Your task to perform on an android device: Open ESPN.com Image 0: 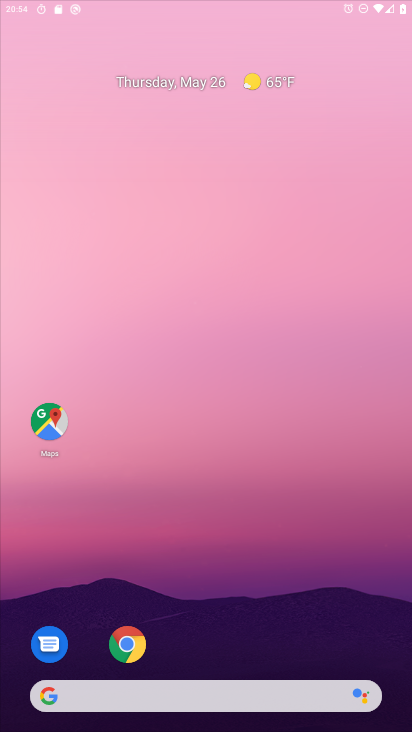
Step 0: click (272, 27)
Your task to perform on an android device: Open ESPN.com Image 1: 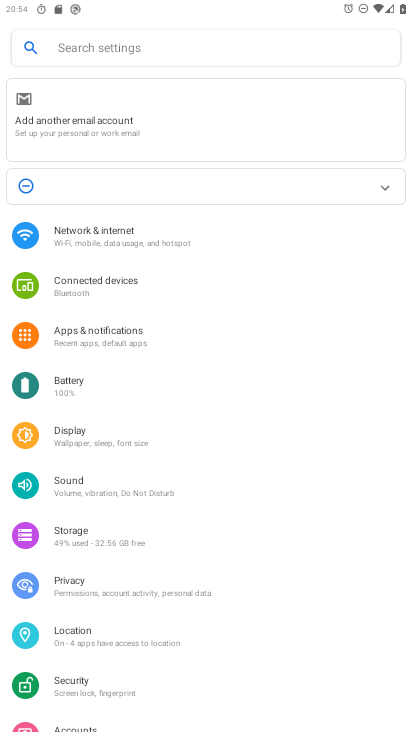
Step 1: drag from (188, 609) to (253, 185)
Your task to perform on an android device: Open ESPN.com Image 2: 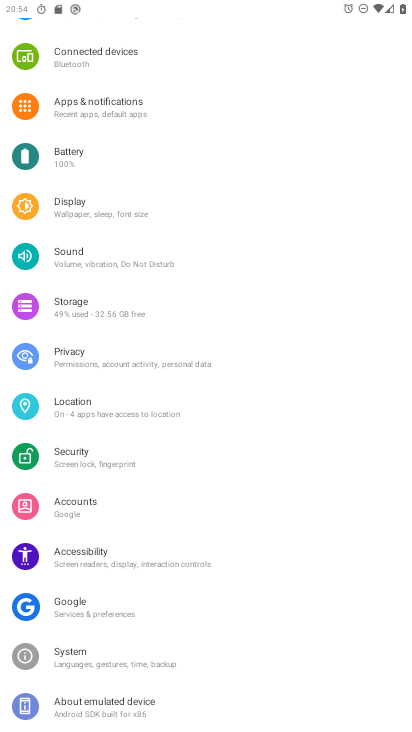
Step 2: drag from (218, 98) to (402, 374)
Your task to perform on an android device: Open ESPN.com Image 3: 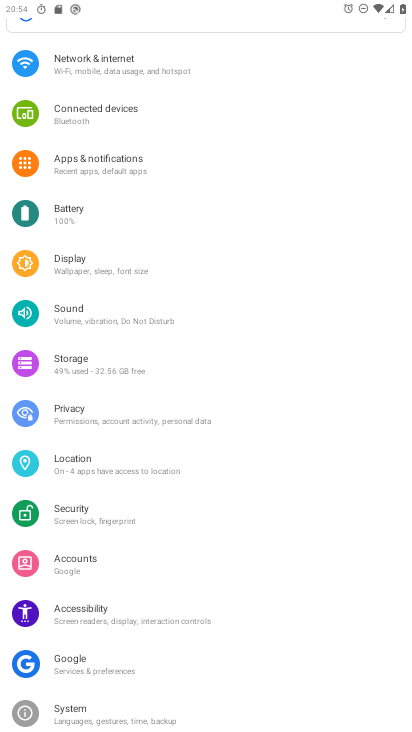
Step 3: drag from (182, 633) to (257, 157)
Your task to perform on an android device: Open ESPN.com Image 4: 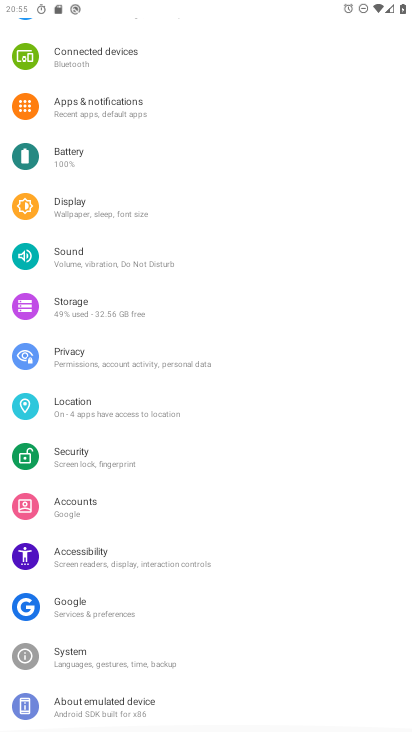
Step 4: drag from (251, 118) to (283, 731)
Your task to perform on an android device: Open ESPN.com Image 5: 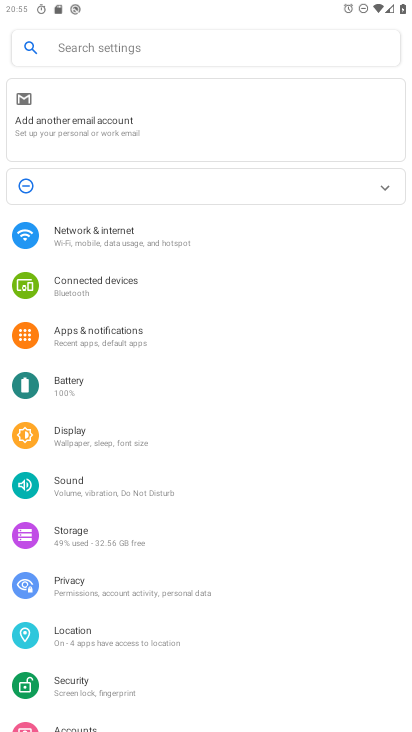
Step 5: drag from (199, 584) to (284, 211)
Your task to perform on an android device: Open ESPN.com Image 6: 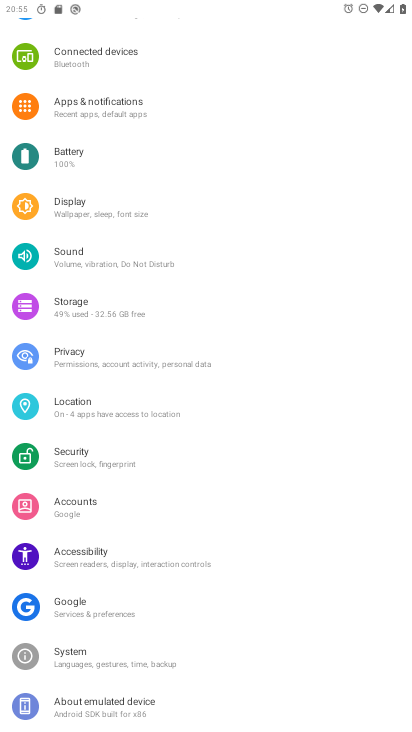
Step 6: drag from (192, 235) to (389, 353)
Your task to perform on an android device: Open ESPN.com Image 7: 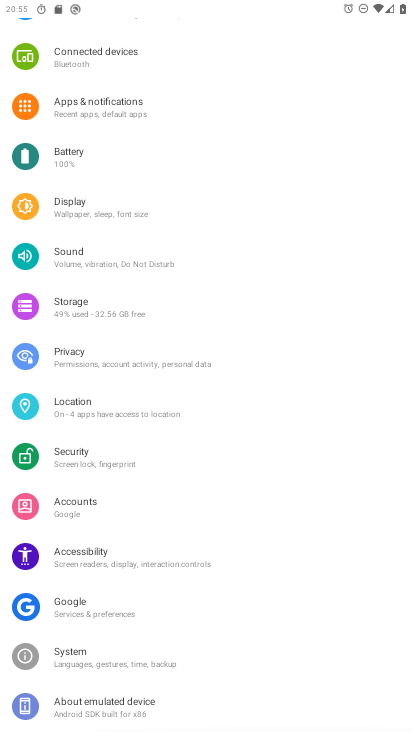
Step 7: drag from (214, 206) to (356, 586)
Your task to perform on an android device: Open ESPN.com Image 8: 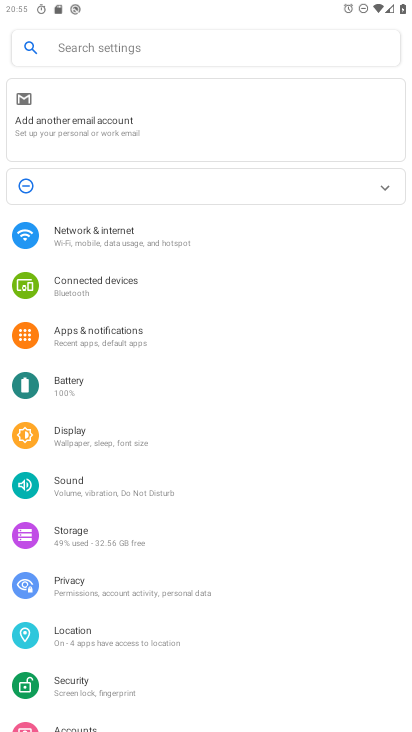
Step 8: press home button
Your task to perform on an android device: Open ESPN.com Image 9: 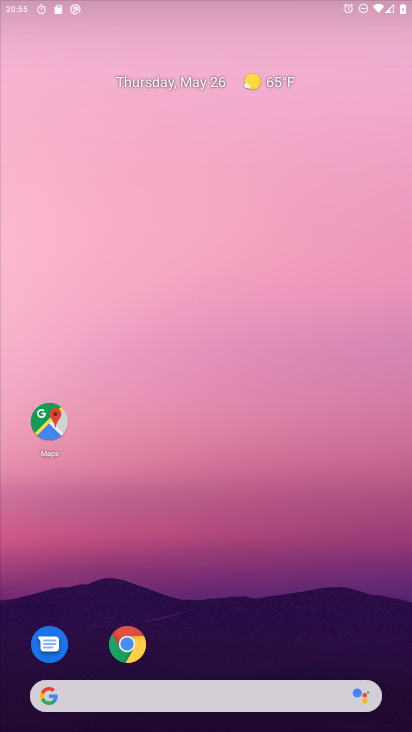
Step 9: click (298, 81)
Your task to perform on an android device: Open ESPN.com Image 10: 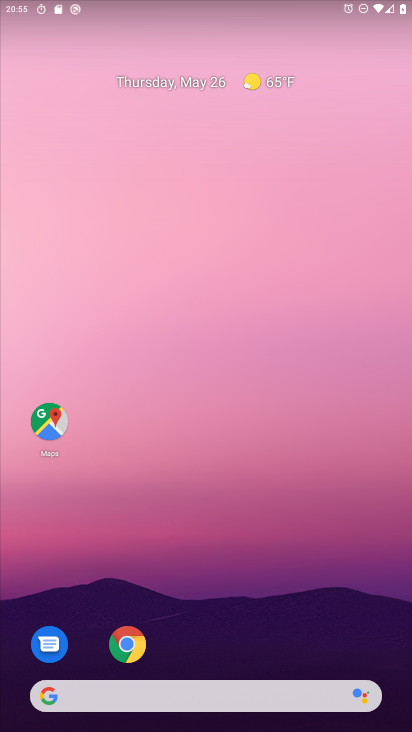
Step 10: click (130, 685)
Your task to perform on an android device: Open ESPN.com Image 11: 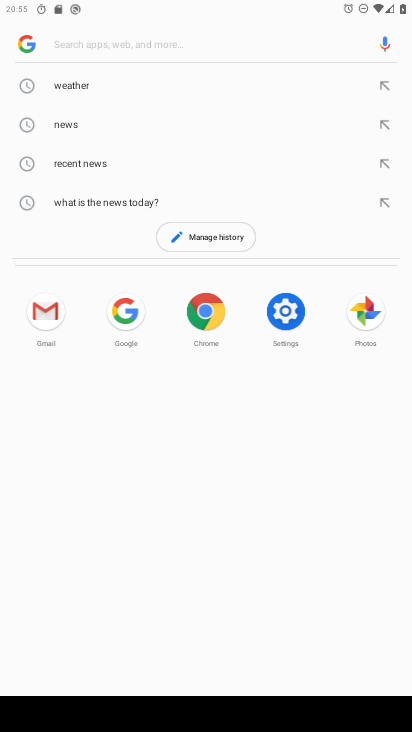
Step 11: type "espn.com"
Your task to perform on an android device: Open ESPN.com Image 12: 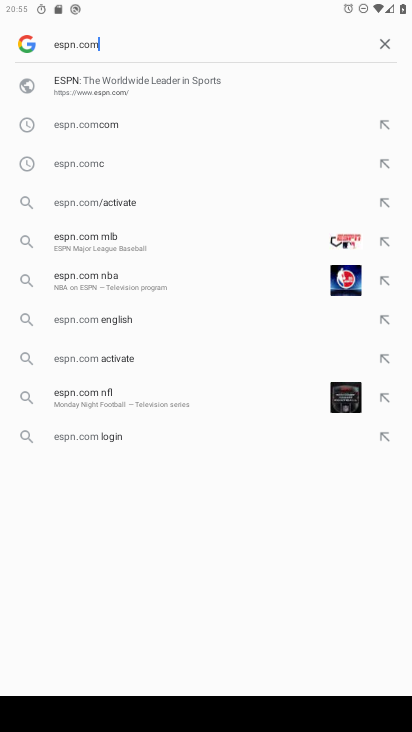
Step 12: click (122, 75)
Your task to perform on an android device: Open ESPN.com Image 13: 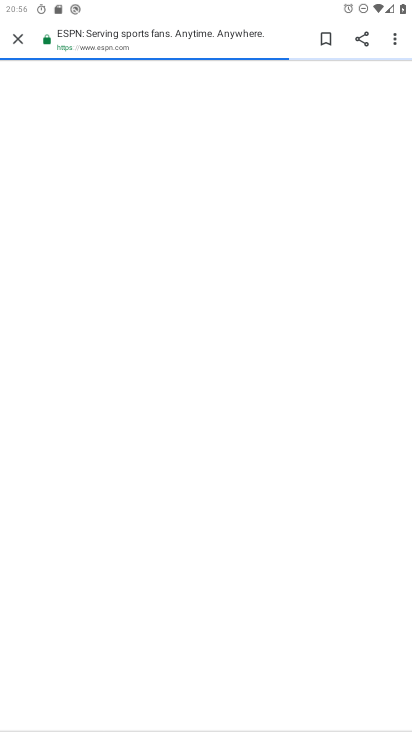
Step 13: task complete